Your task to perform on an android device: Go to settings Image 0: 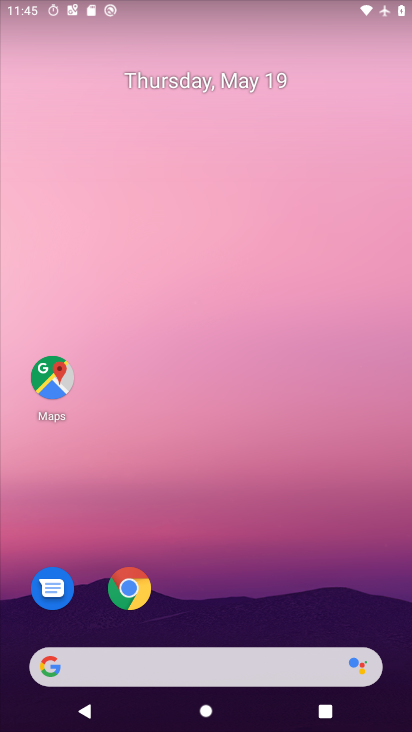
Step 0: press home button
Your task to perform on an android device: Go to settings Image 1: 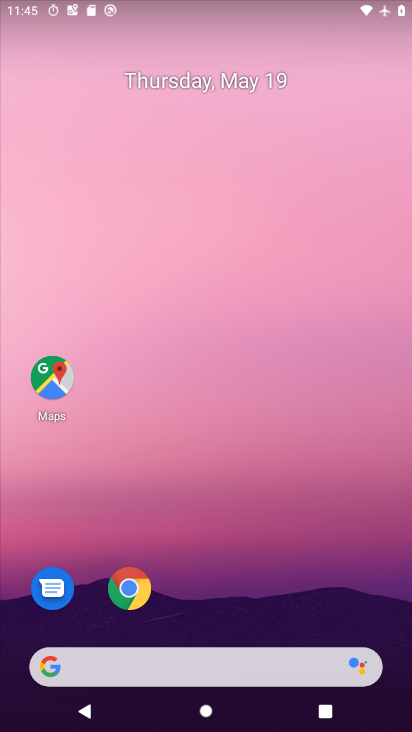
Step 1: drag from (168, 619) to (227, 259)
Your task to perform on an android device: Go to settings Image 2: 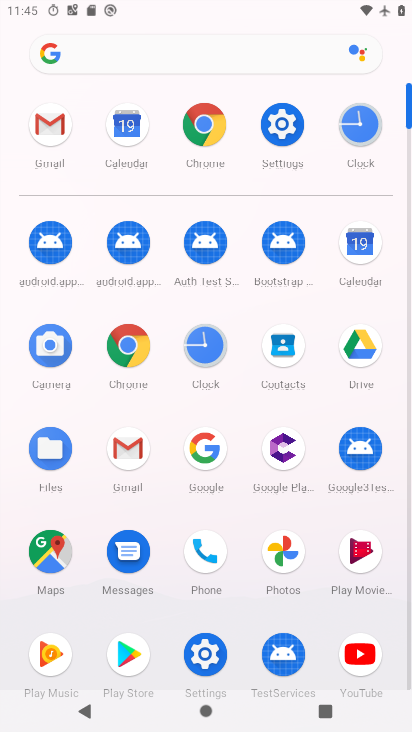
Step 2: click (273, 134)
Your task to perform on an android device: Go to settings Image 3: 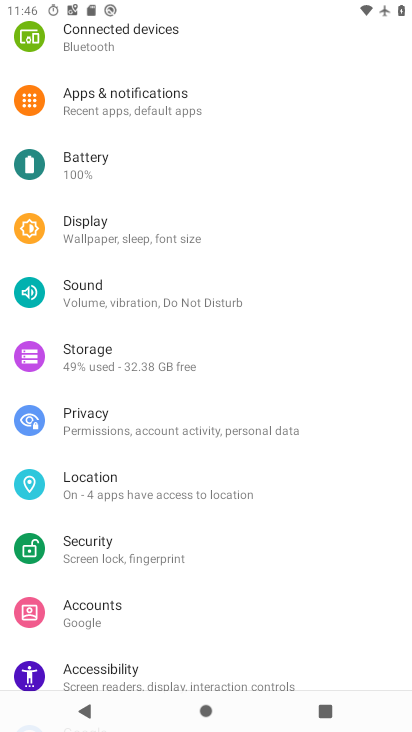
Step 3: task complete